Your task to perform on an android device: Find coffee shops on Maps Image 0: 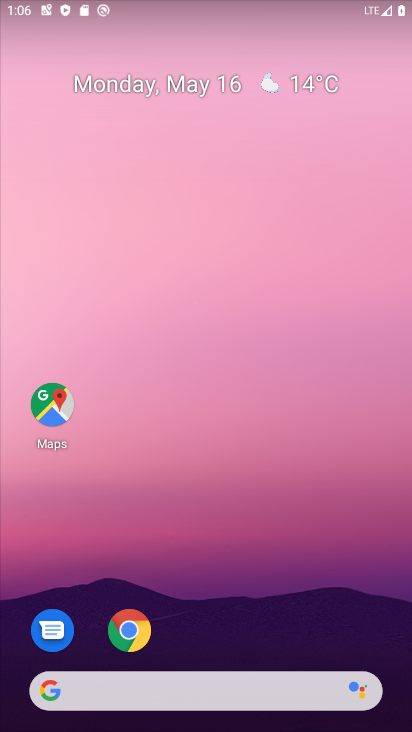
Step 0: drag from (296, 648) to (330, 110)
Your task to perform on an android device: Find coffee shops on Maps Image 1: 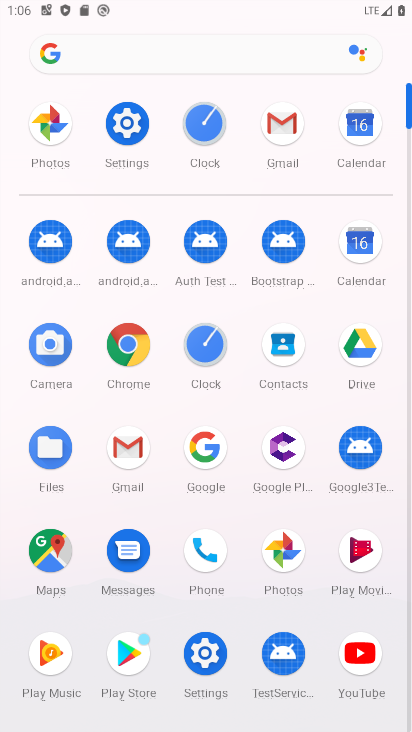
Step 1: click (41, 535)
Your task to perform on an android device: Find coffee shops on Maps Image 2: 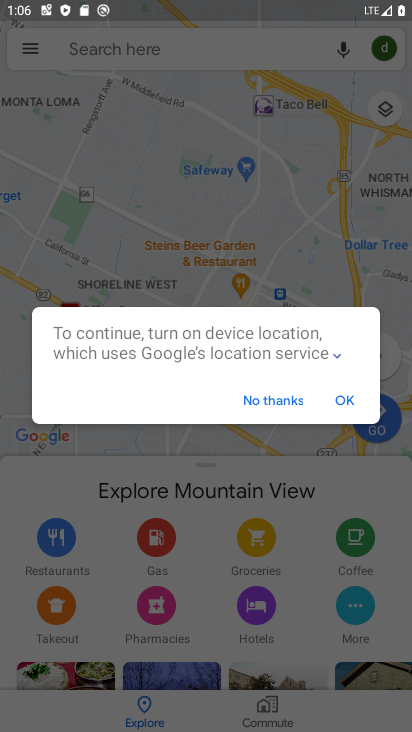
Step 2: click (354, 403)
Your task to perform on an android device: Find coffee shops on Maps Image 3: 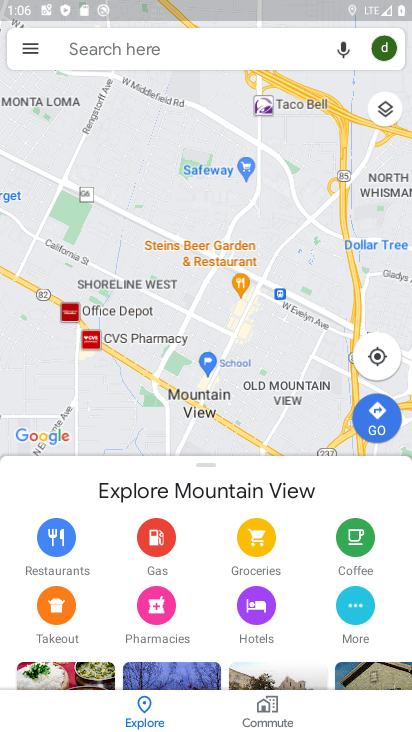
Step 3: click (240, 47)
Your task to perform on an android device: Find coffee shops on Maps Image 4: 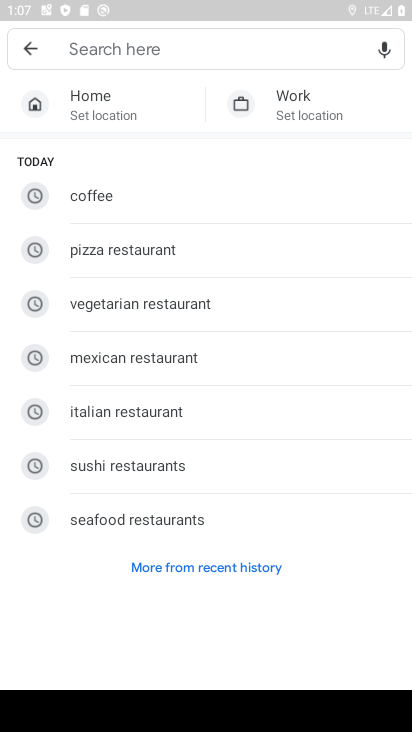
Step 4: click (136, 196)
Your task to perform on an android device: Find coffee shops on Maps Image 5: 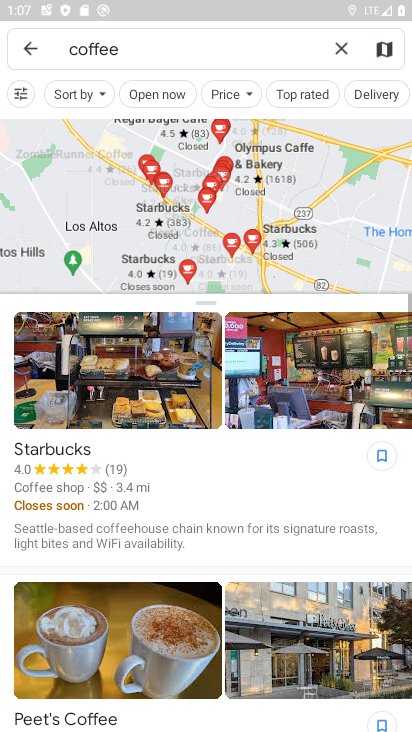
Step 5: task complete